Your task to perform on an android device: Add "asus rog" to the cart on target Image 0: 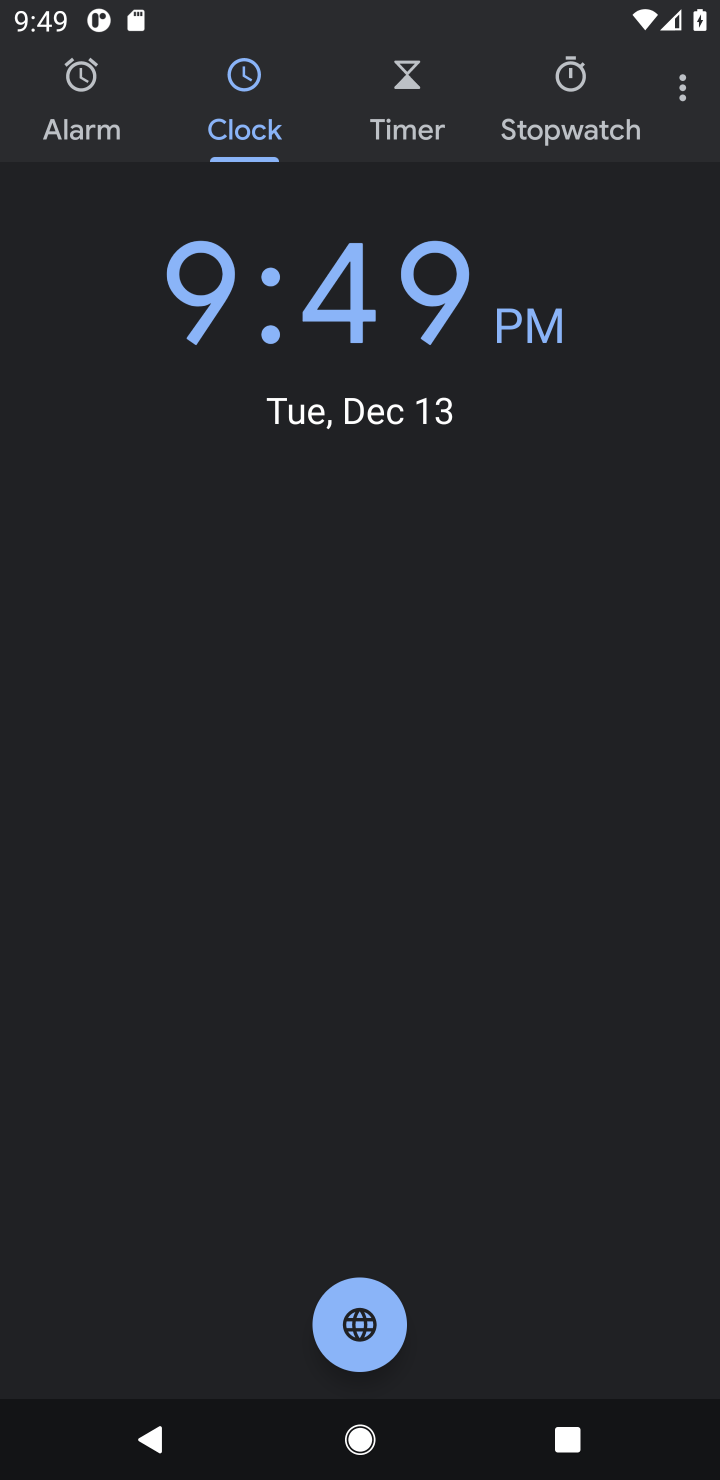
Step 0: press home button
Your task to perform on an android device: Add "asus rog" to the cart on target Image 1: 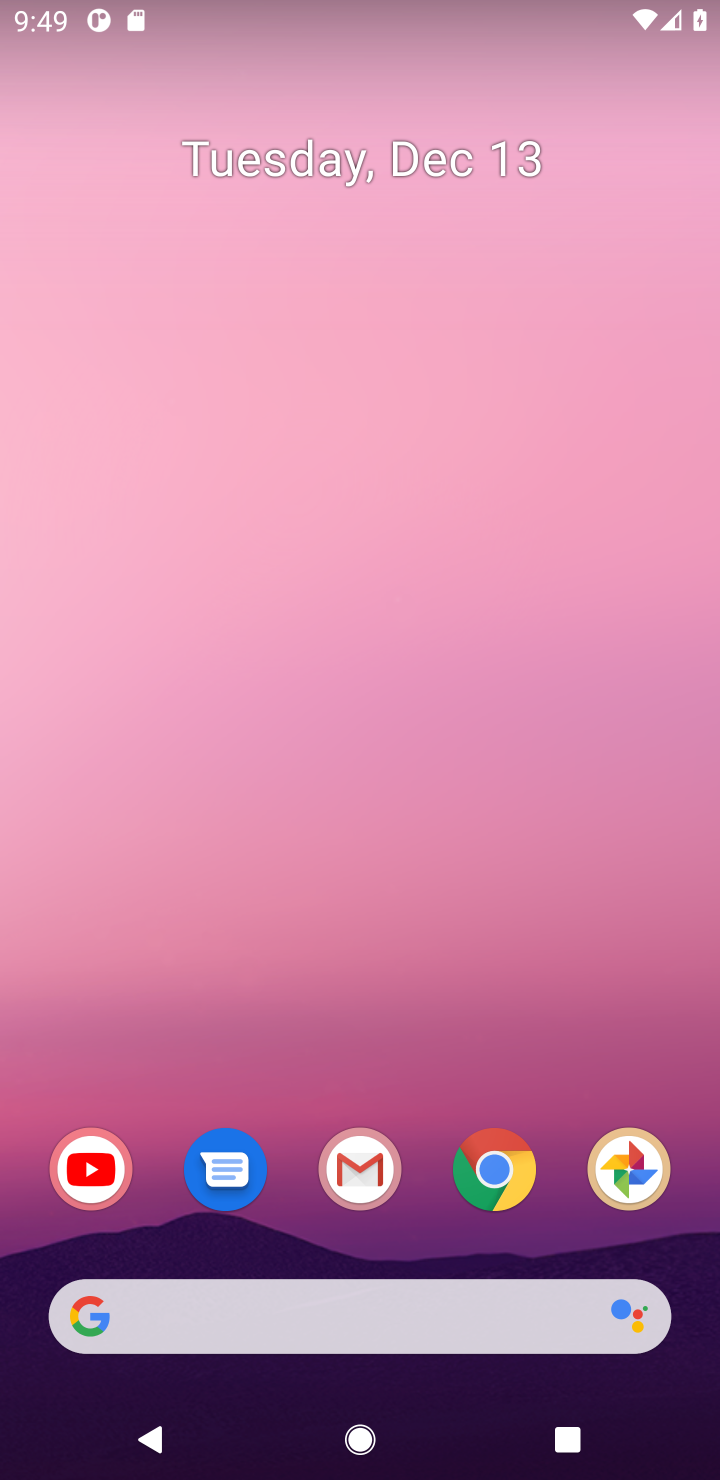
Step 1: click (522, 1304)
Your task to perform on an android device: Add "asus rog" to the cart on target Image 2: 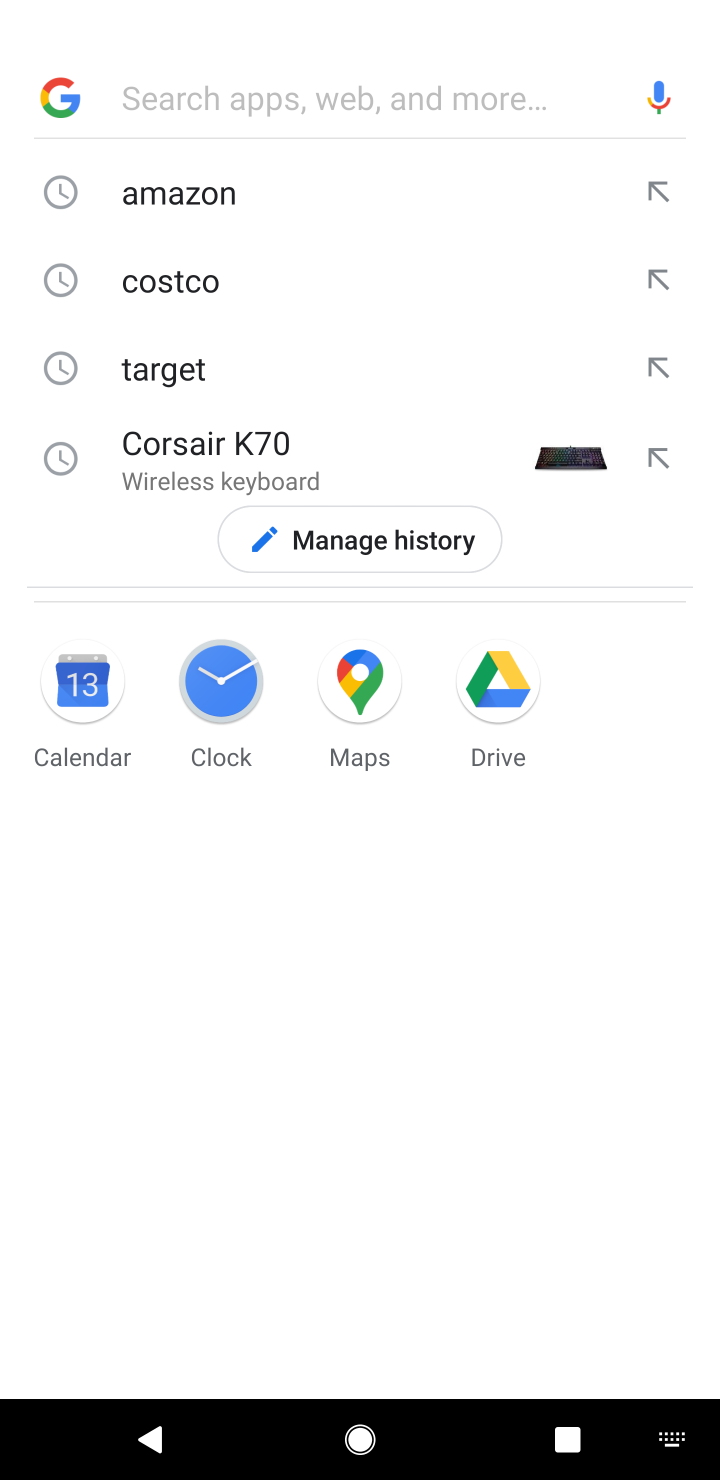
Step 2: click (167, 342)
Your task to perform on an android device: Add "asus rog" to the cart on target Image 3: 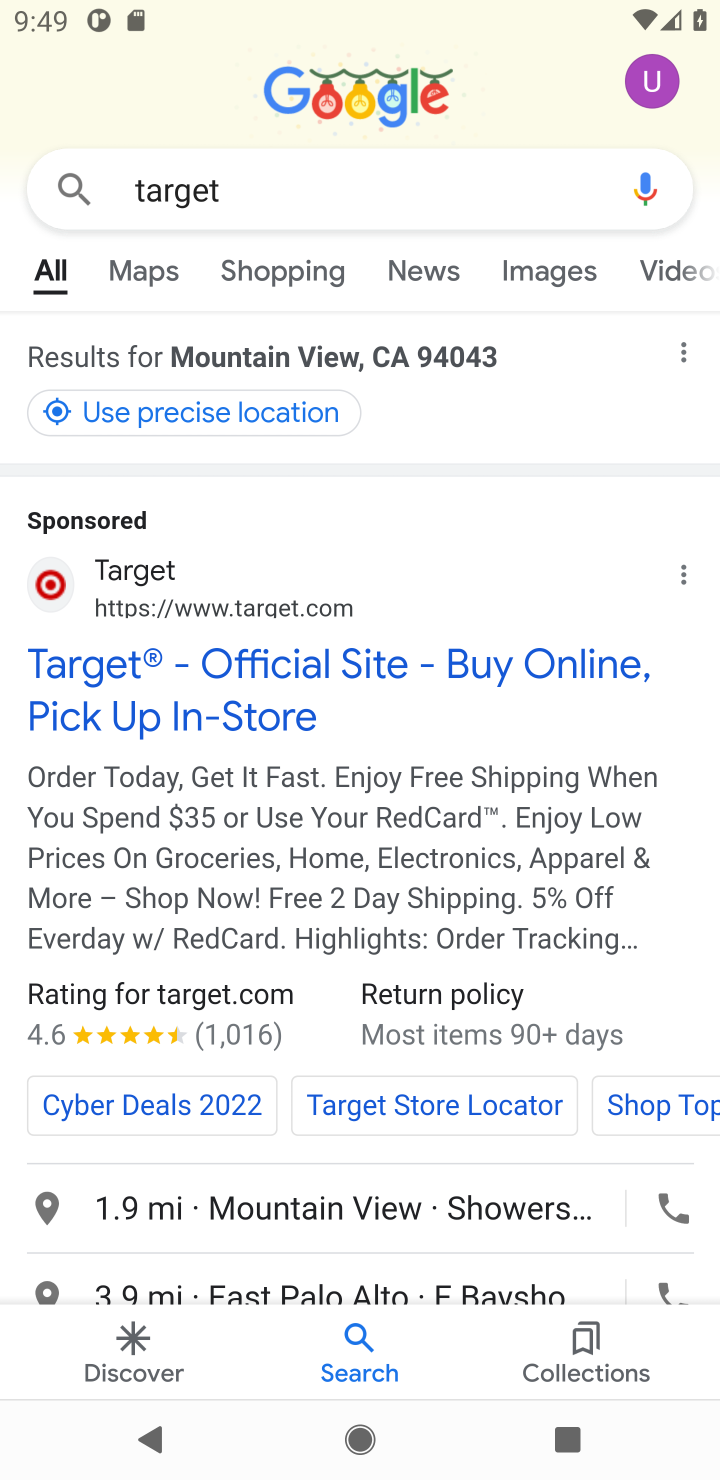
Step 3: click (306, 734)
Your task to perform on an android device: Add "asus rog" to the cart on target Image 4: 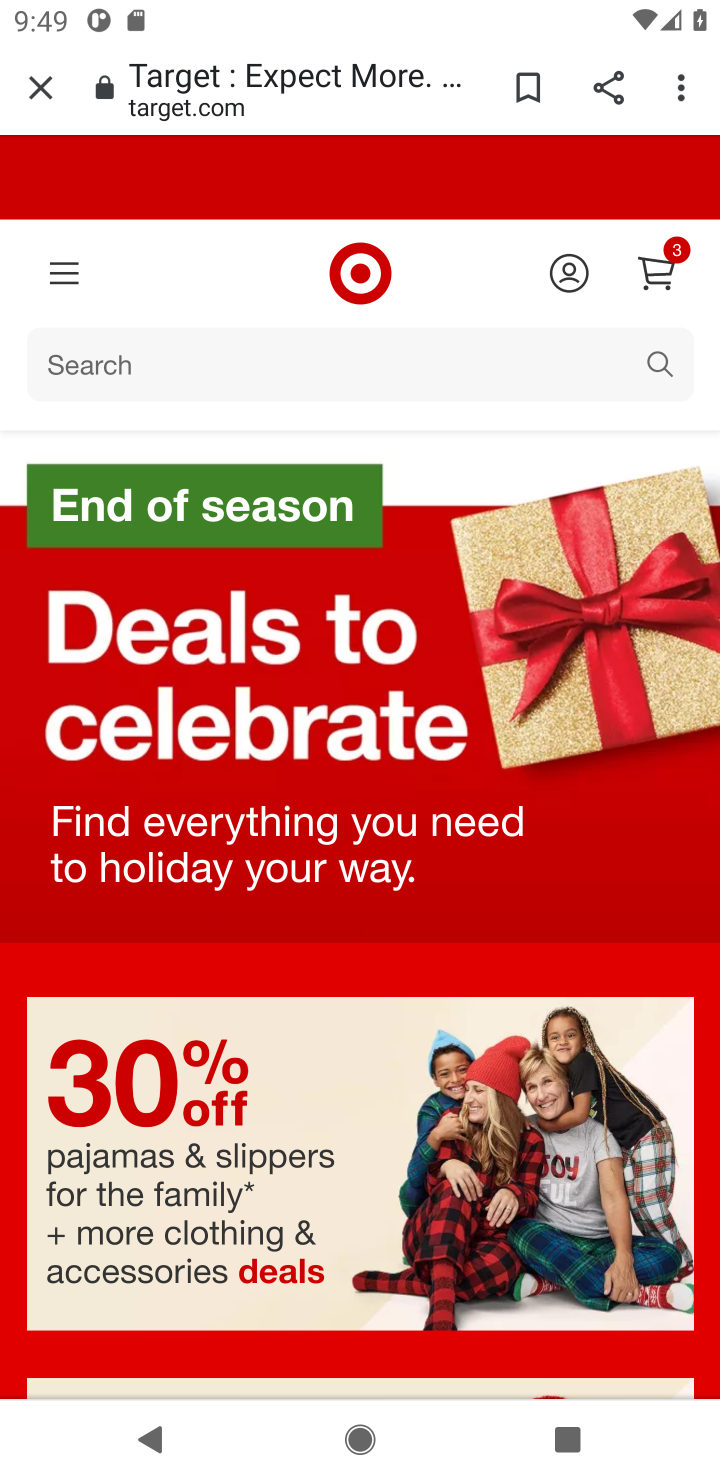
Step 4: click (271, 378)
Your task to perform on an android device: Add "asus rog" to the cart on target Image 5: 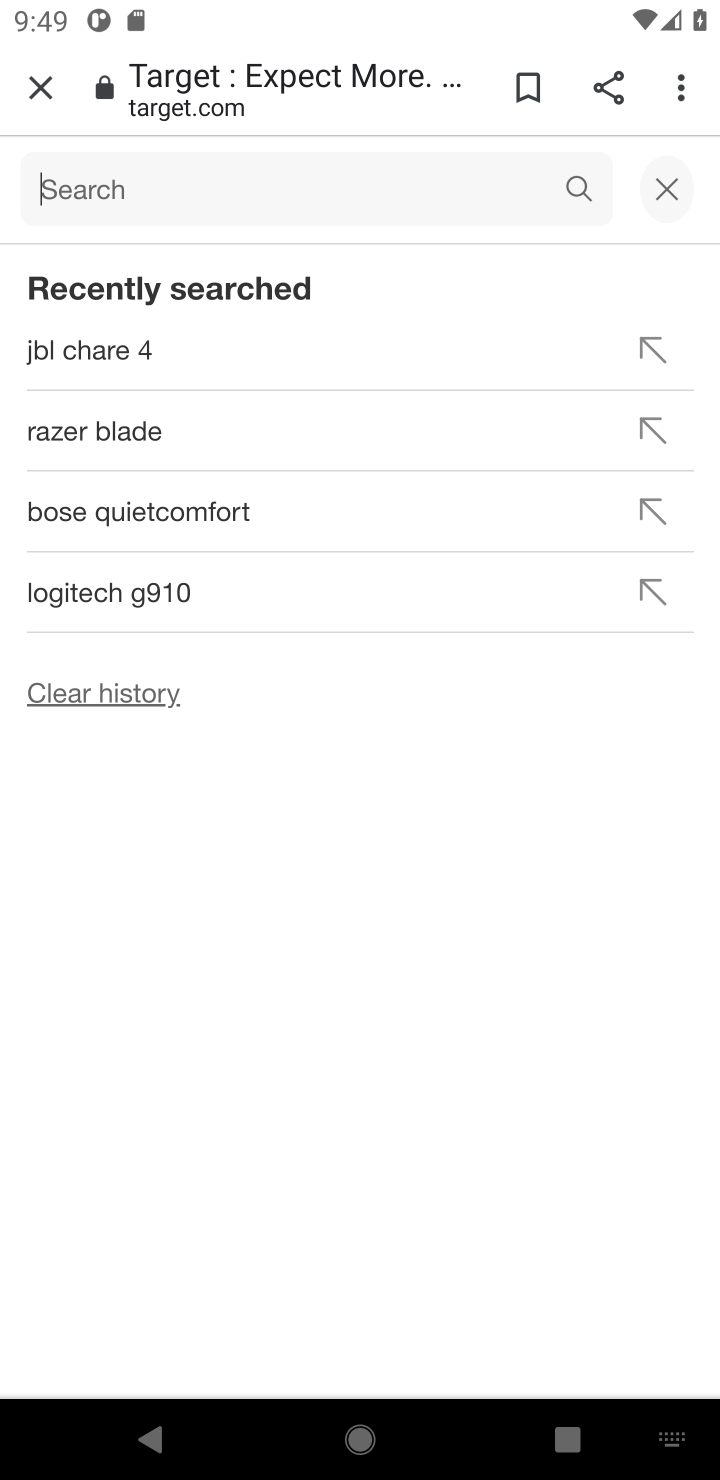
Step 5: type "asus rog"
Your task to perform on an android device: Add "asus rog" to the cart on target Image 6: 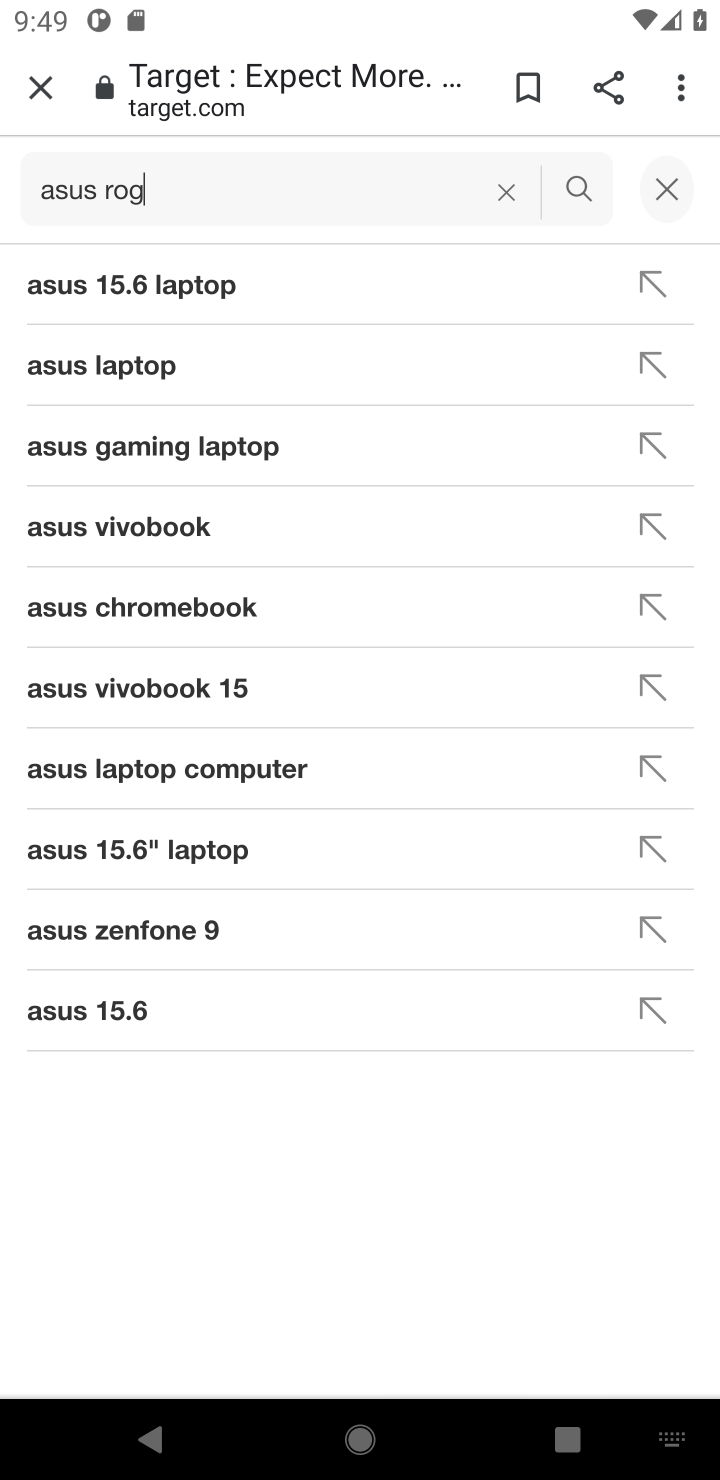
Step 6: click (581, 201)
Your task to perform on an android device: Add "asus rog" to the cart on target Image 7: 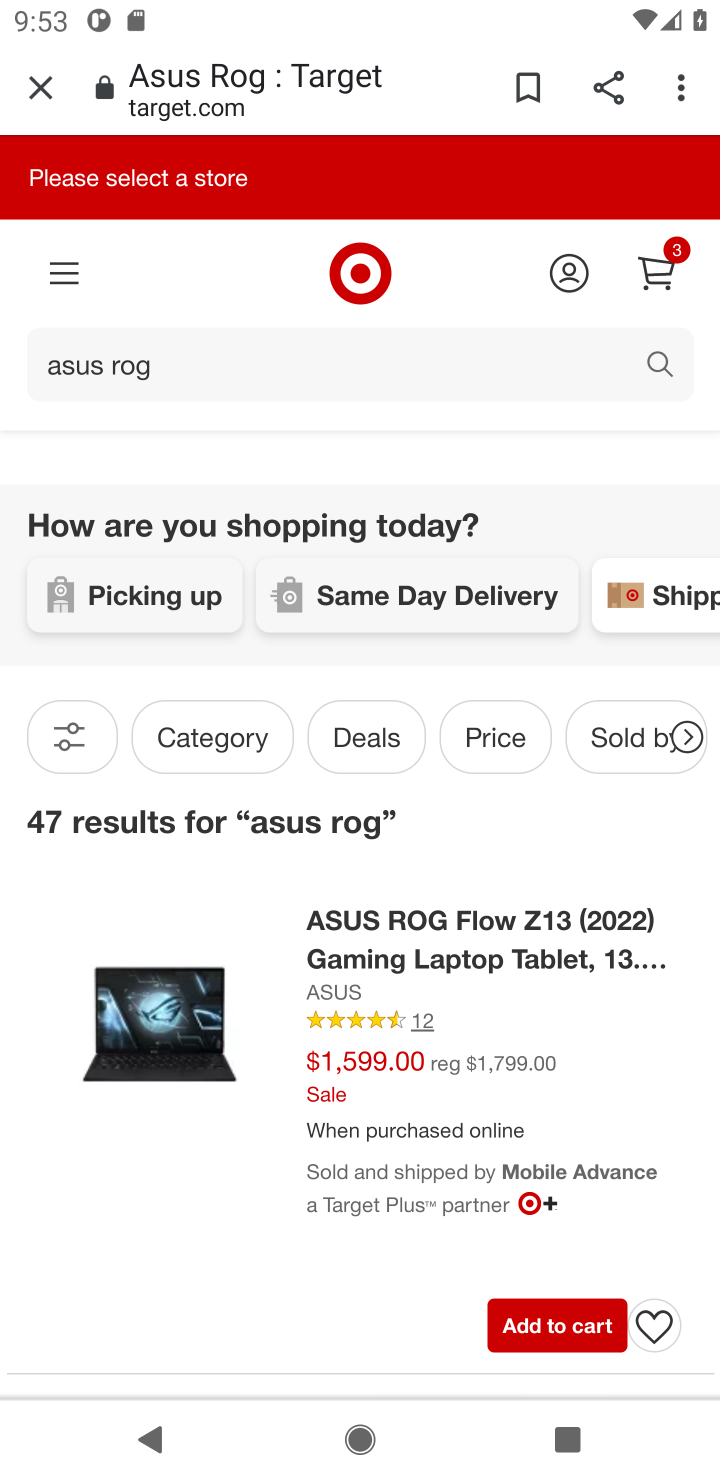
Step 7: task complete